Your task to perform on an android device: Clear the shopping cart on target.com. Search for panasonic triple a on target.com, select the first entry, and add it to the cart. Image 0: 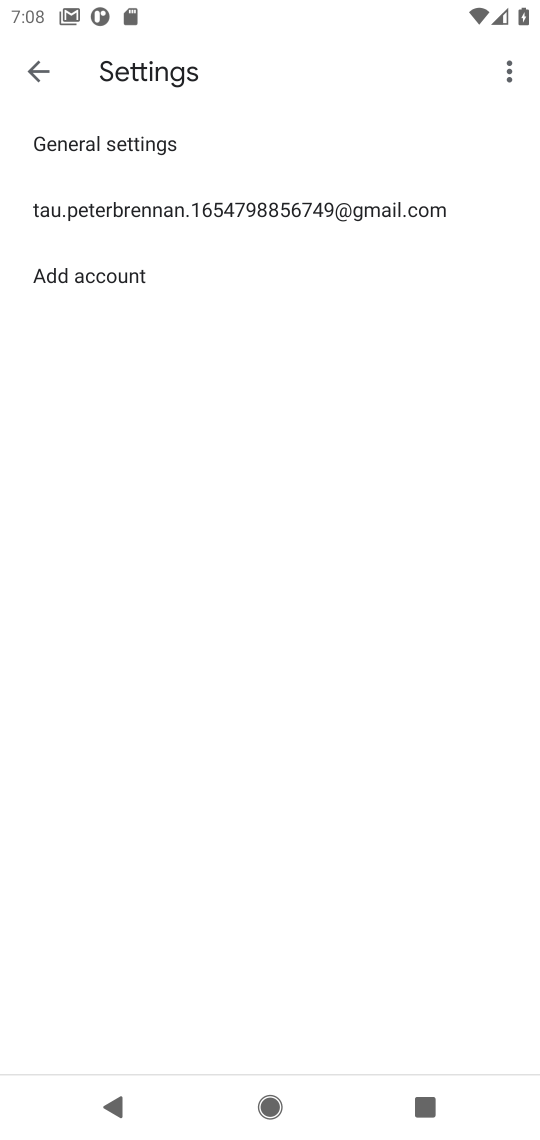
Step 0: press home button
Your task to perform on an android device: Clear the shopping cart on target.com. Search for panasonic triple a on target.com, select the first entry, and add it to the cart. Image 1: 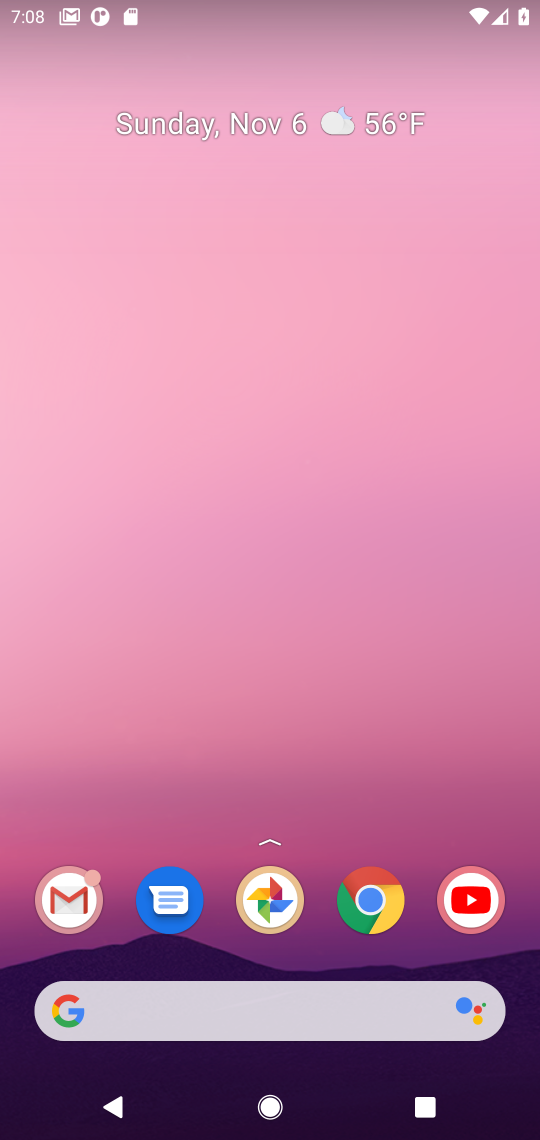
Step 1: drag from (318, 949) to (301, 94)
Your task to perform on an android device: Clear the shopping cart on target.com. Search for panasonic triple a on target.com, select the first entry, and add it to the cart. Image 2: 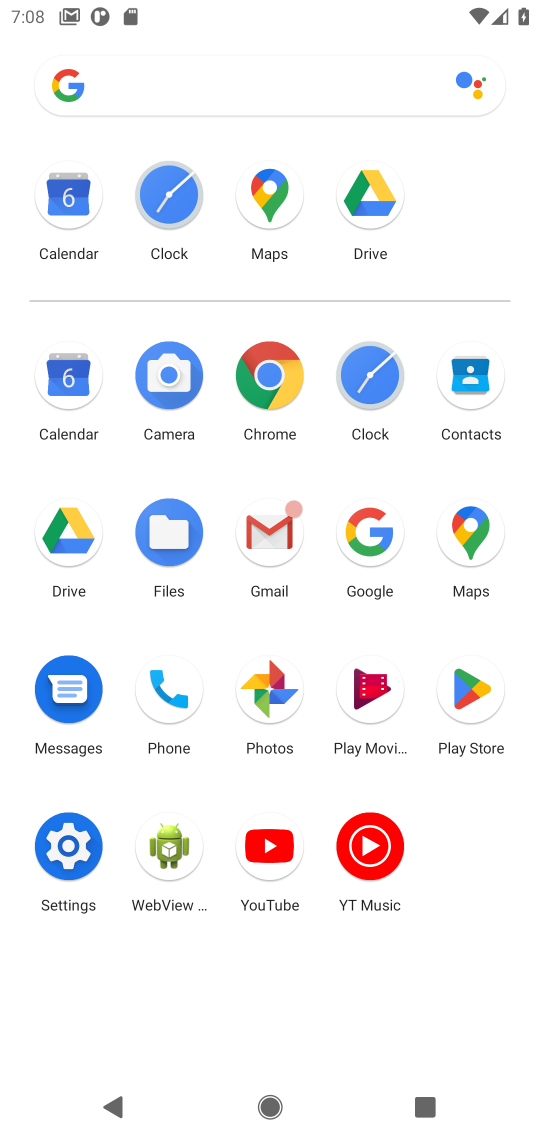
Step 2: click (270, 369)
Your task to perform on an android device: Clear the shopping cart on target.com. Search for panasonic triple a on target.com, select the first entry, and add it to the cart. Image 3: 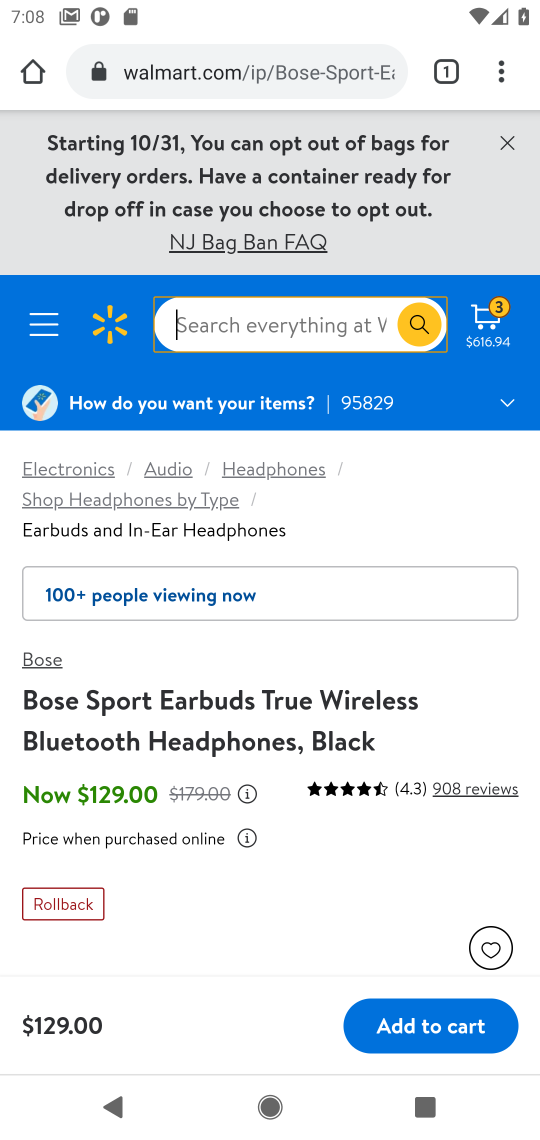
Step 3: click (321, 70)
Your task to perform on an android device: Clear the shopping cart on target.com. Search for panasonic triple a on target.com, select the first entry, and add it to the cart. Image 4: 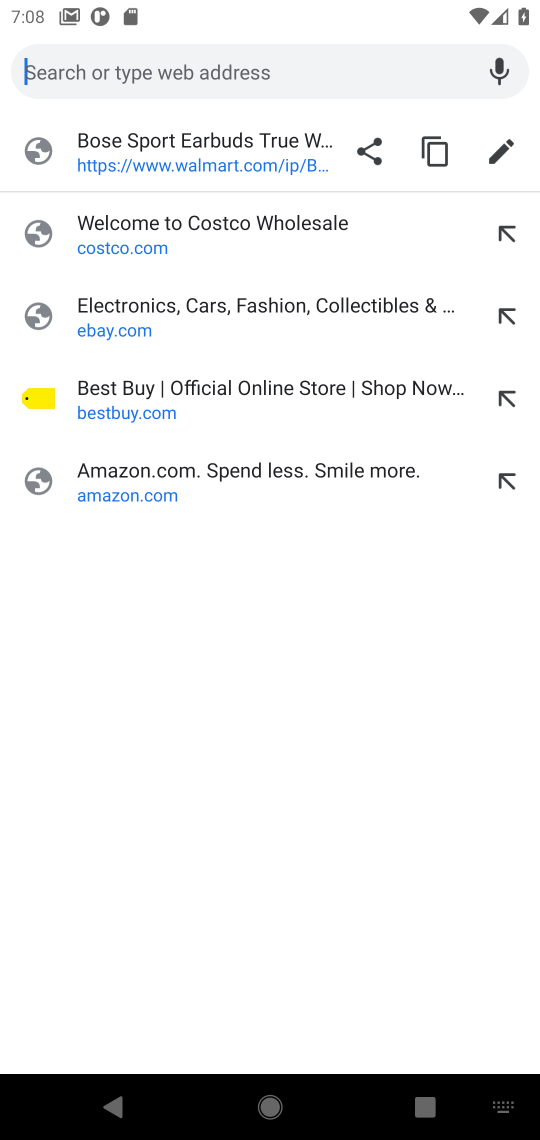
Step 4: type "target.com"
Your task to perform on an android device: Clear the shopping cart on target.com. Search for panasonic triple a on target.com, select the first entry, and add it to the cart. Image 5: 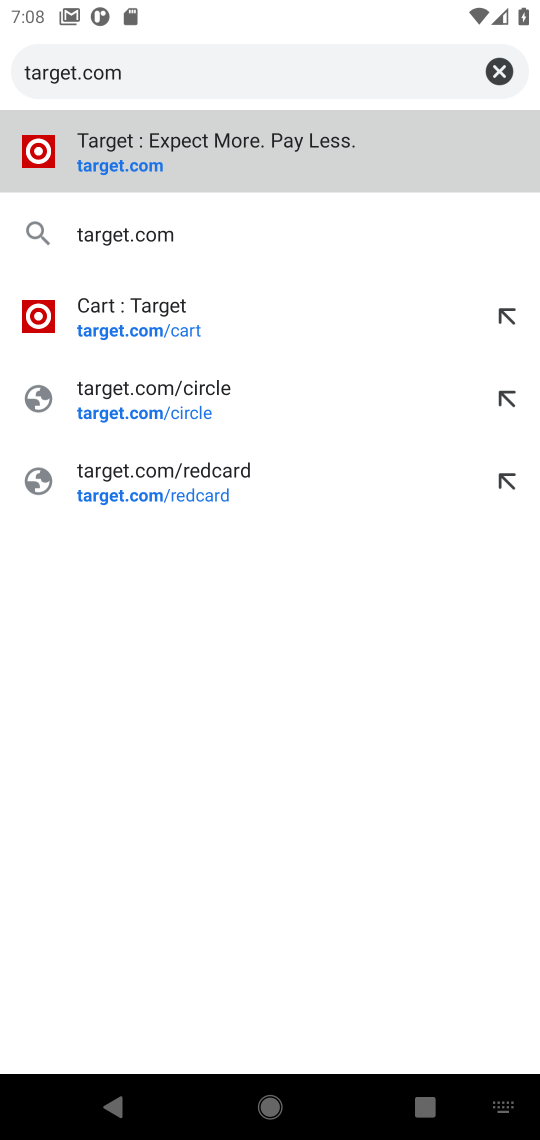
Step 5: press enter
Your task to perform on an android device: Clear the shopping cart on target.com. Search for panasonic triple a on target.com, select the first entry, and add it to the cart. Image 6: 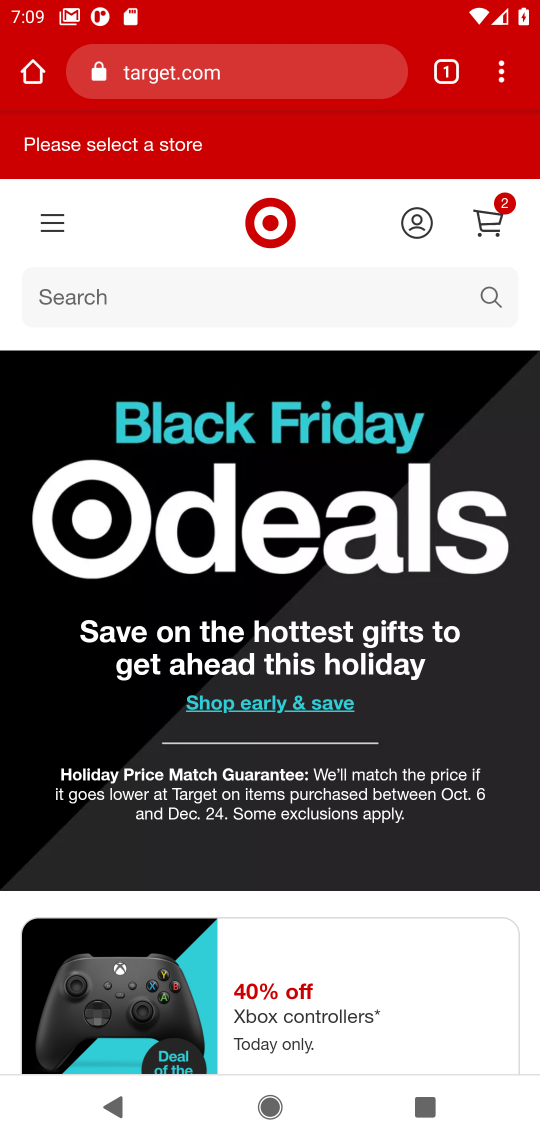
Step 6: click (498, 205)
Your task to perform on an android device: Clear the shopping cart on target.com. Search for panasonic triple a on target.com, select the first entry, and add it to the cart. Image 7: 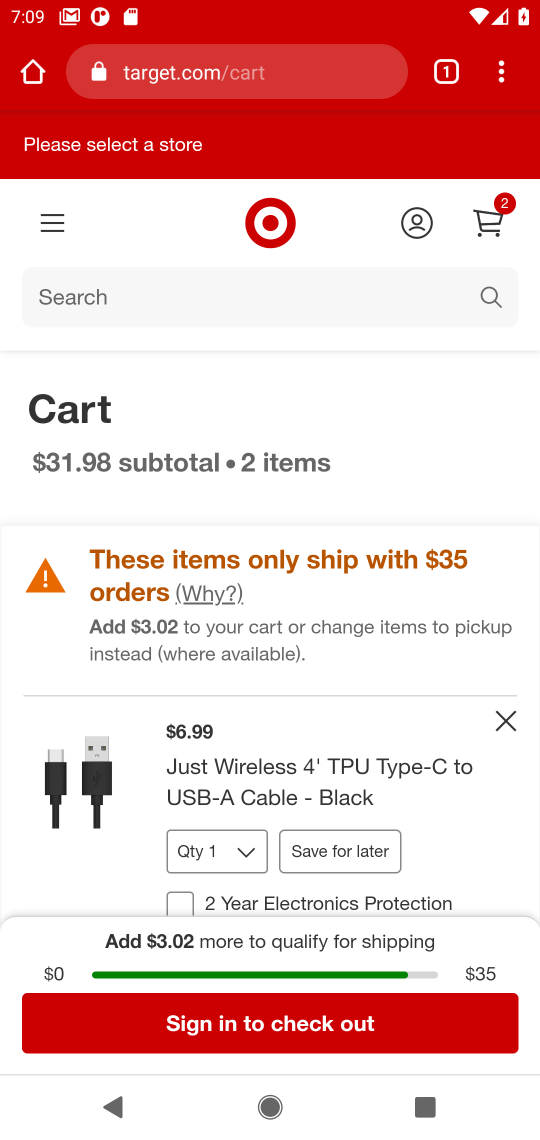
Step 7: drag from (381, 795) to (401, 309)
Your task to perform on an android device: Clear the shopping cart on target.com. Search for panasonic triple a on target.com, select the first entry, and add it to the cart. Image 8: 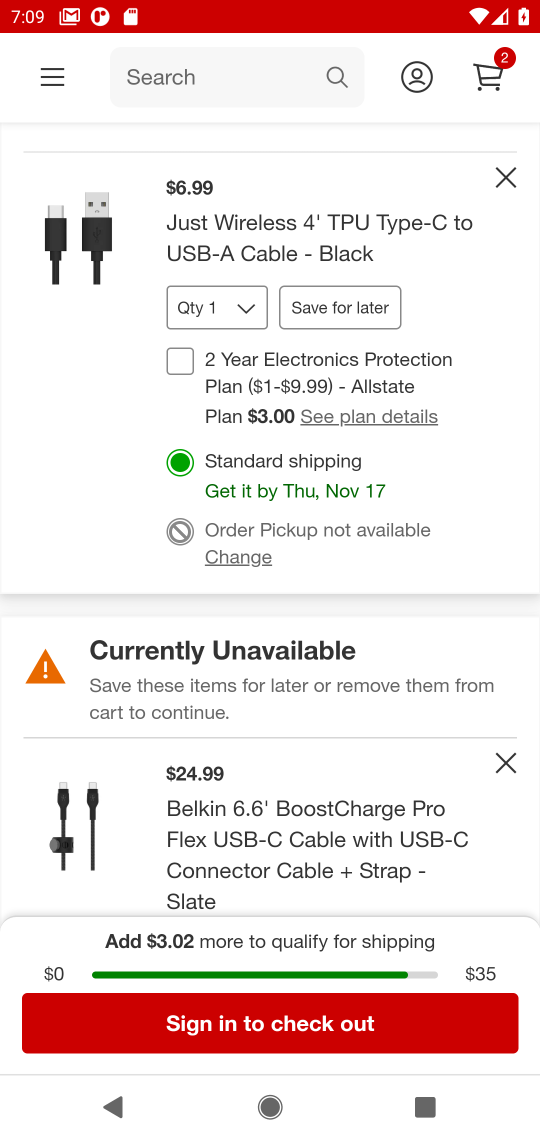
Step 8: click (517, 169)
Your task to perform on an android device: Clear the shopping cart on target.com. Search for panasonic triple a on target.com, select the first entry, and add it to the cart. Image 9: 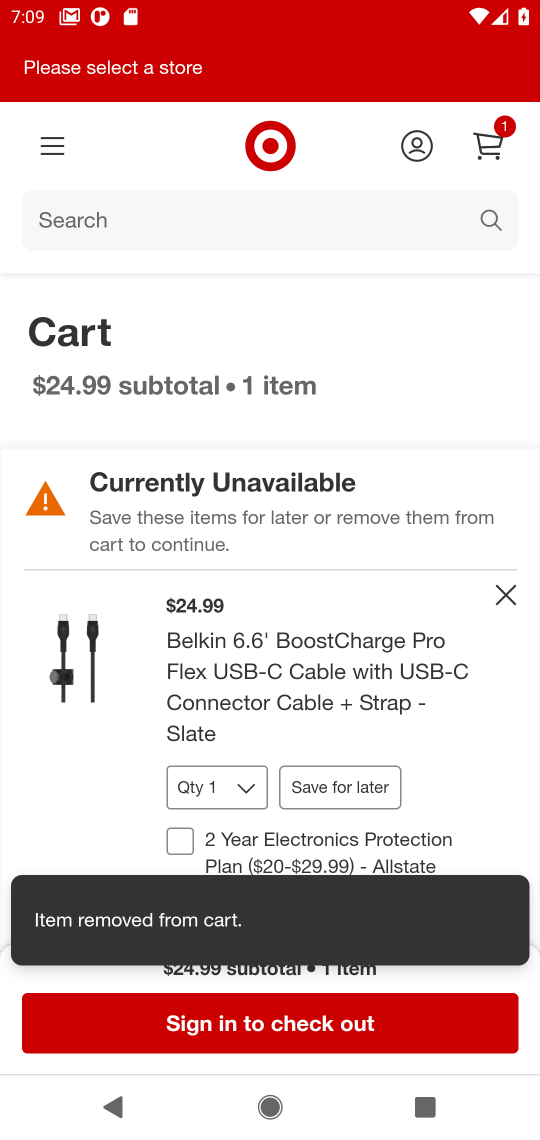
Step 9: click (278, 237)
Your task to perform on an android device: Clear the shopping cart on target.com. Search for panasonic triple a on target.com, select the first entry, and add it to the cart. Image 10: 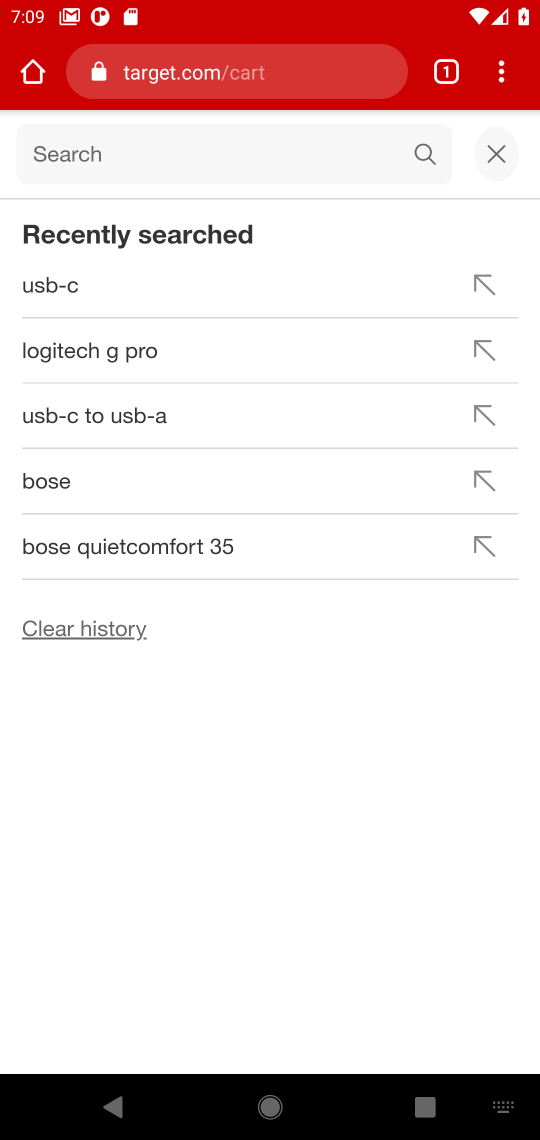
Step 10: click (497, 145)
Your task to perform on an android device: Clear the shopping cart on target.com. Search for panasonic triple a on target.com, select the first entry, and add it to the cart. Image 11: 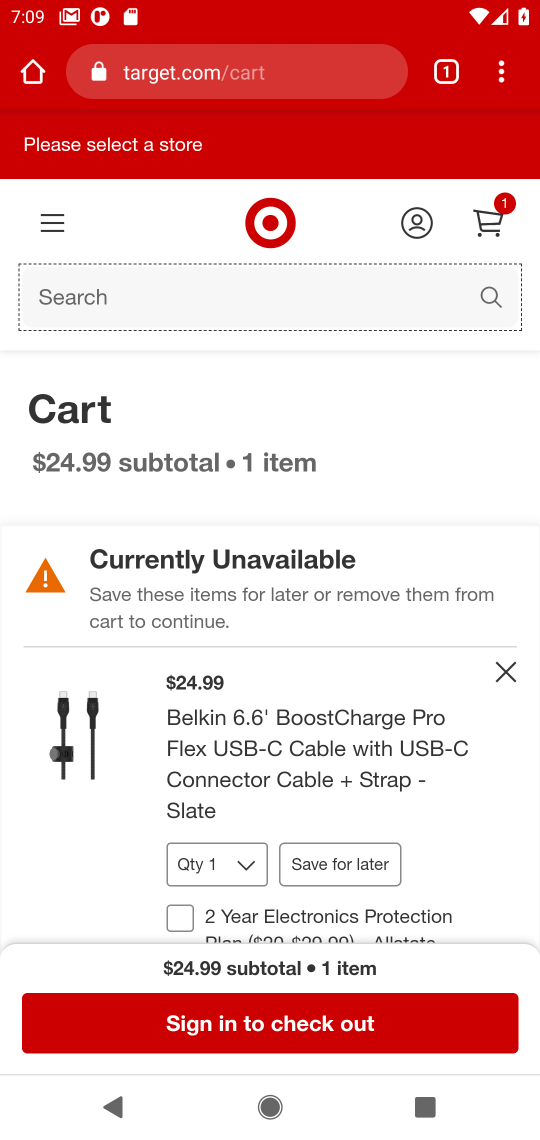
Step 11: click (495, 682)
Your task to perform on an android device: Clear the shopping cart on target.com. Search for panasonic triple a on target.com, select the first entry, and add it to the cart. Image 12: 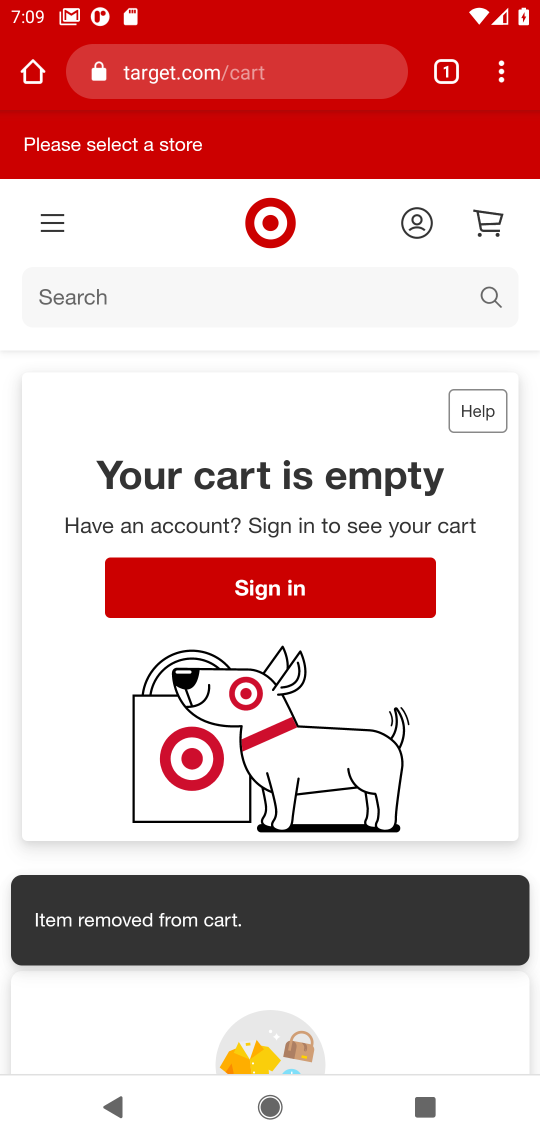
Step 12: click (125, 288)
Your task to perform on an android device: Clear the shopping cart on target.com. Search for panasonic triple a on target.com, select the first entry, and add it to the cart. Image 13: 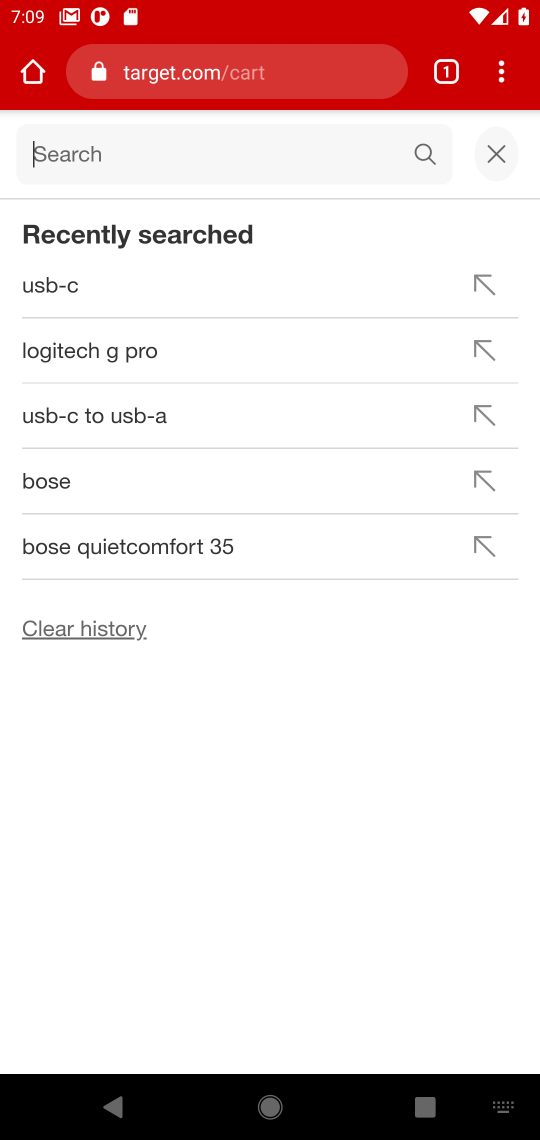
Step 13: type "panasonic triple a"
Your task to perform on an android device: Clear the shopping cart on target.com. Search for panasonic triple a on target.com, select the first entry, and add it to the cart. Image 14: 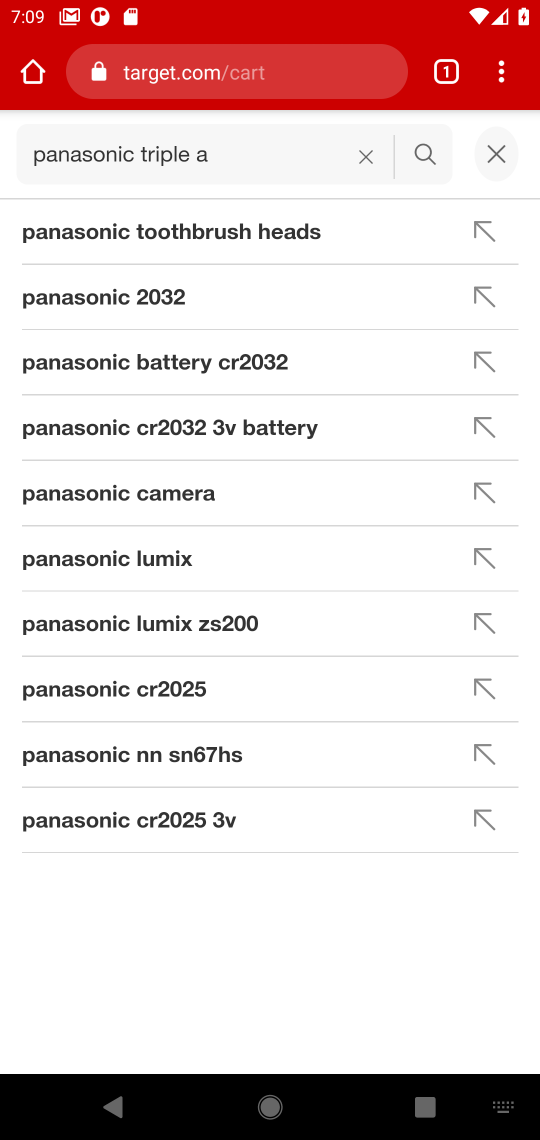
Step 14: press enter
Your task to perform on an android device: Clear the shopping cart on target.com. Search for panasonic triple a on target.com, select the first entry, and add it to the cart. Image 15: 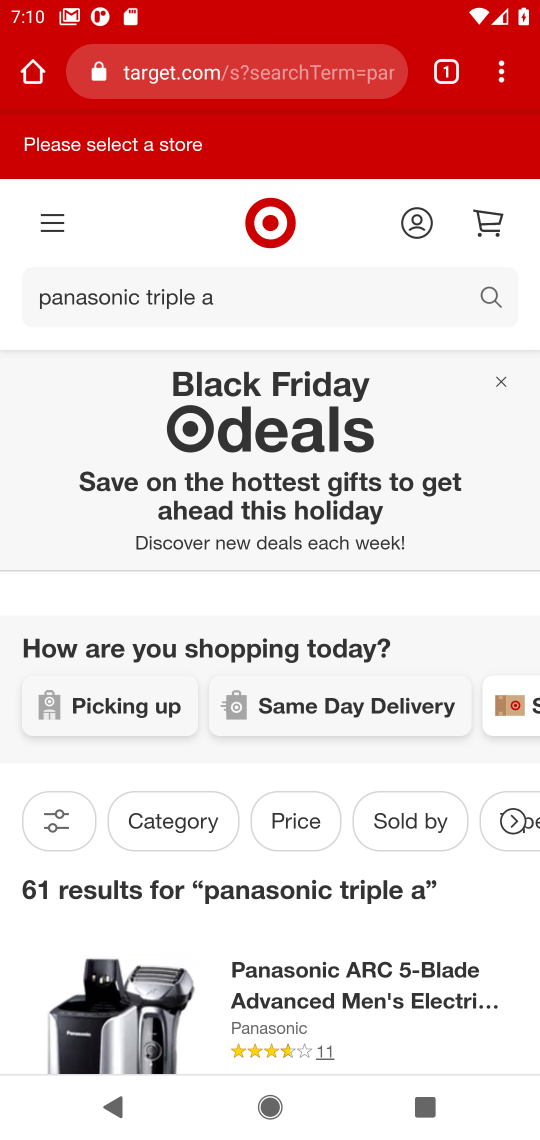
Step 15: drag from (363, 961) to (330, 285)
Your task to perform on an android device: Clear the shopping cart on target.com. Search for panasonic triple a on target.com, select the first entry, and add it to the cart. Image 16: 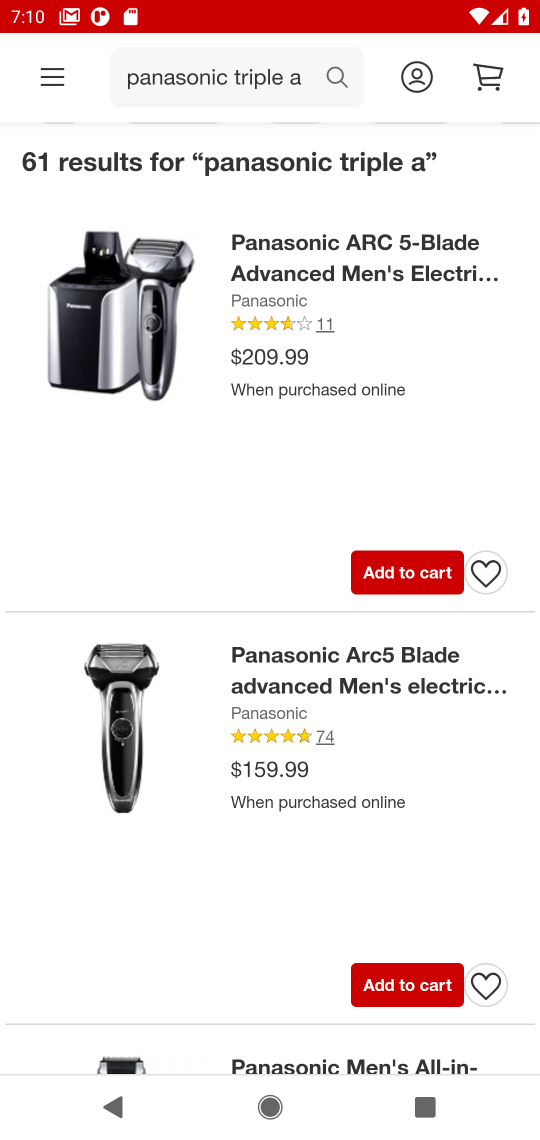
Step 16: drag from (342, 751) to (297, 210)
Your task to perform on an android device: Clear the shopping cart on target.com. Search for panasonic triple a on target.com, select the first entry, and add it to the cart. Image 17: 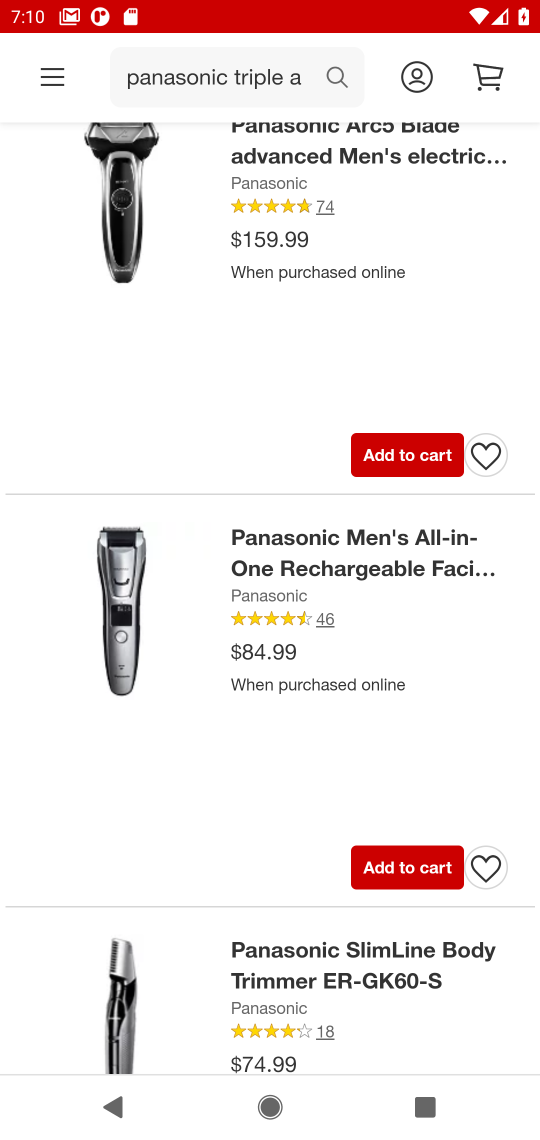
Step 17: drag from (207, 253) to (213, 1124)
Your task to perform on an android device: Clear the shopping cart on target.com. Search for panasonic triple a on target.com, select the first entry, and add it to the cart. Image 18: 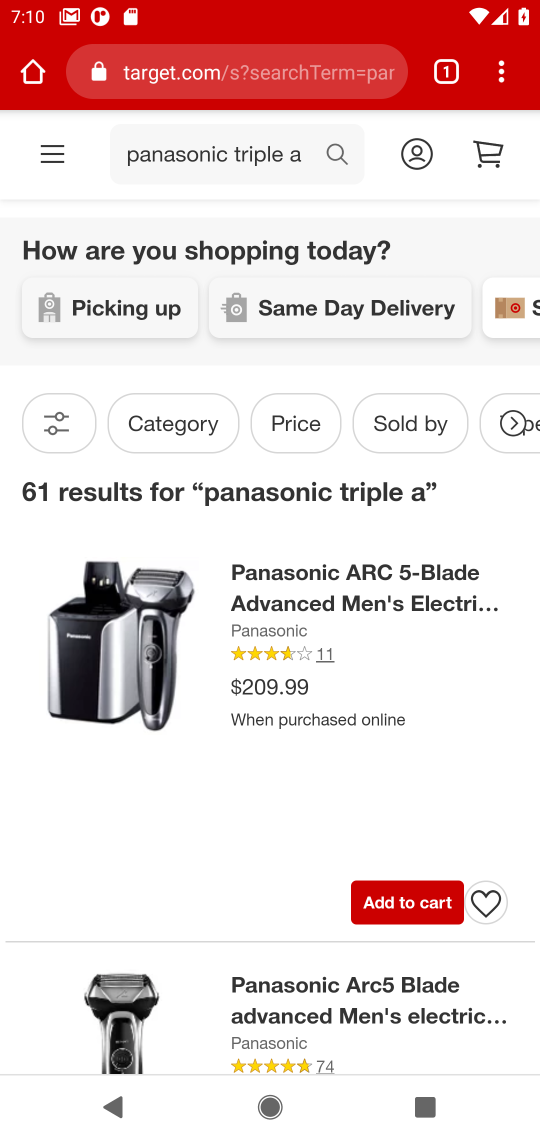
Step 18: click (409, 591)
Your task to perform on an android device: Clear the shopping cart on target.com. Search for panasonic triple a on target.com, select the first entry, and add it to the cart. Image 19: 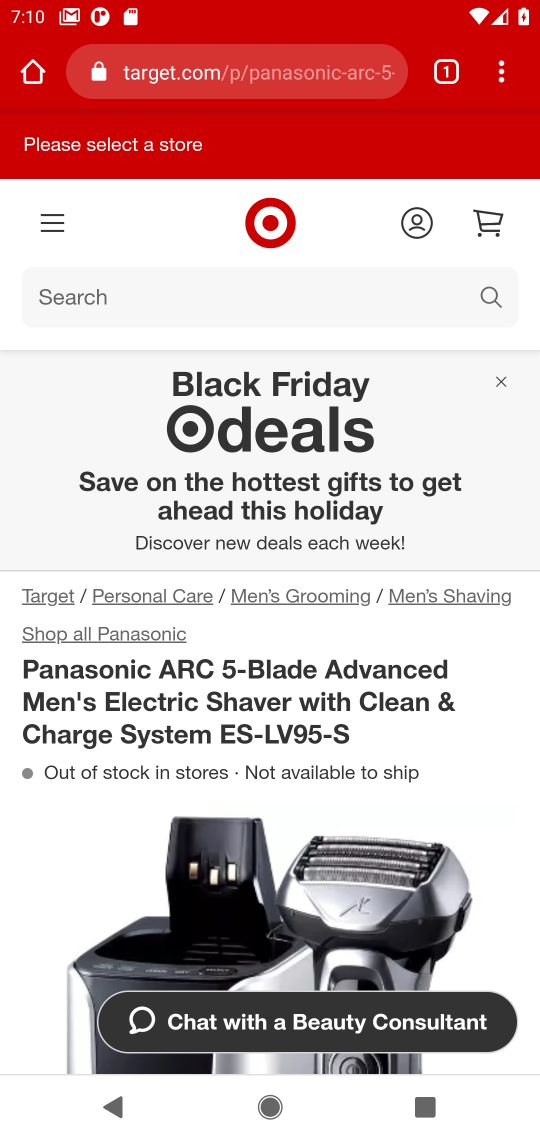
Step 19: task complete